Your task to perform on an android device: What's on my calendar tomorrow? Image 0: 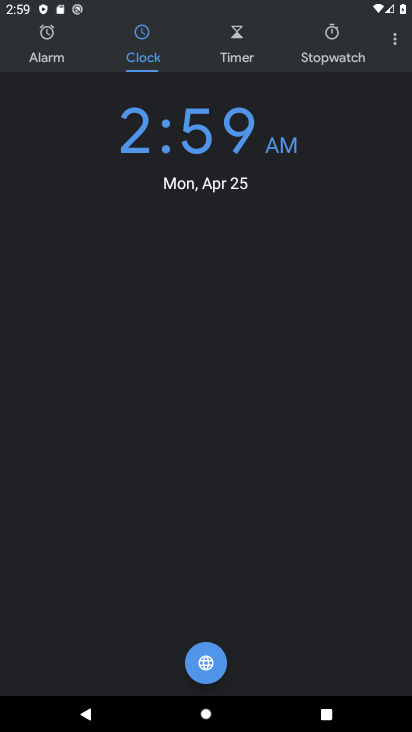
Step 0: press home button
Your task to perform on an android device: What's on my calendar tomorrow? Image 1: 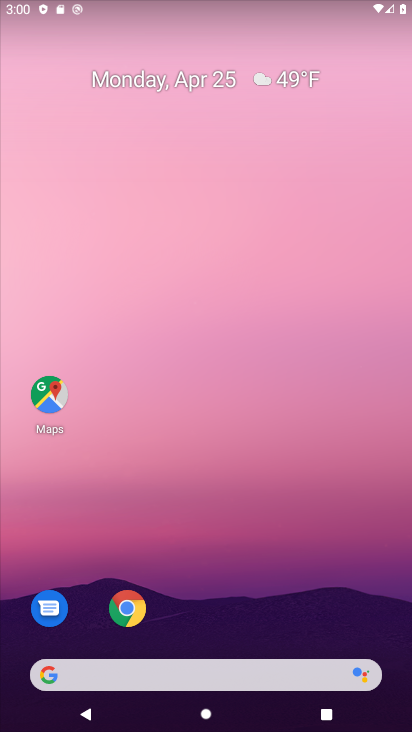
Step 1: drag from (186, 664) to (213, 6)
Your task to perform on an android device: What's on my calendar tomorrow? Image 2: 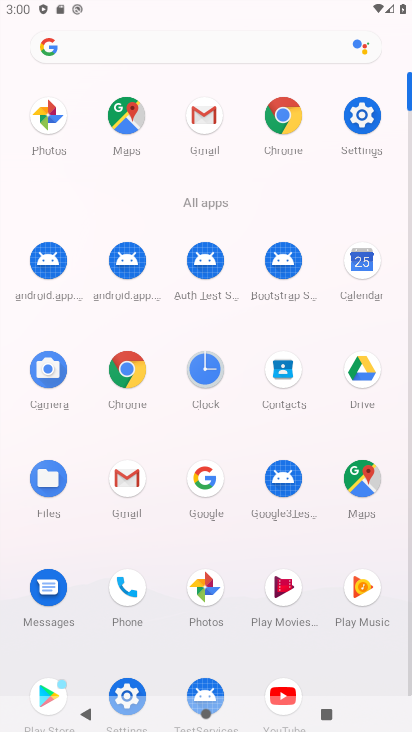
Step 2: click (368, 269)
Your task to perform on an android device: What's on my calendar tomorrow? Image 3: 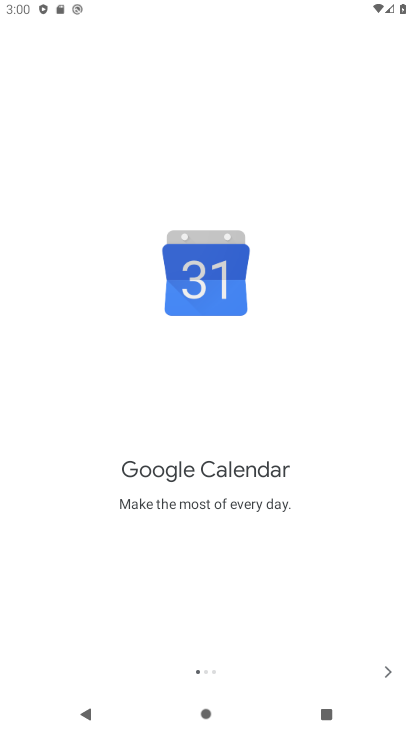
Step 3: click (388, 669)
Your task to perform on an android device: What's on my calendar tomorrow? Image 4: 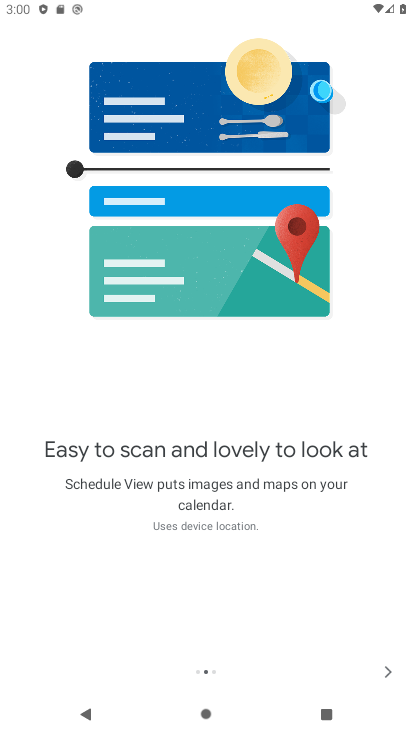
Step 4: click (388, 669)
Your task to perform on an android device: What's on my calendar tomorrow? Image 5: 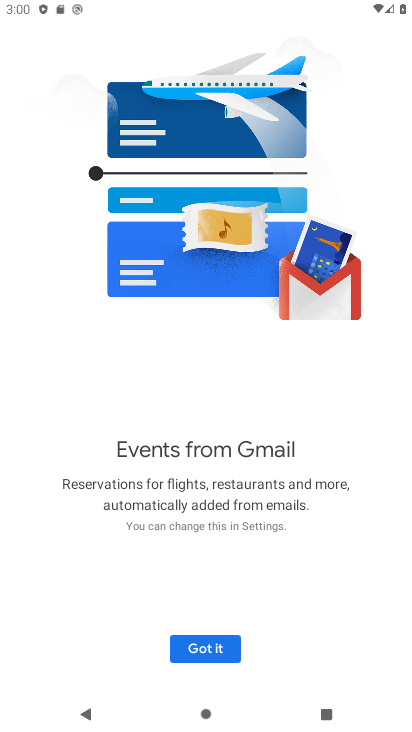
Step 5: click (215, 648)
Your task to perform on an android device: What's on my calendar tomorrow? Image 6: 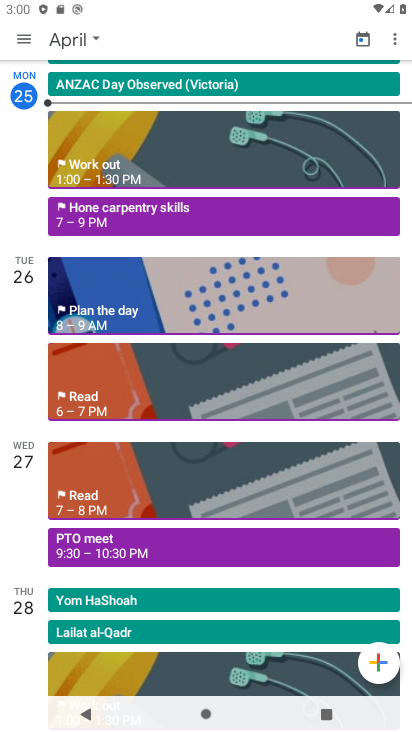
Step 6: click (18, 272)
Your task to perform on an android device: What's on my calendar tomorrow? Image 7: 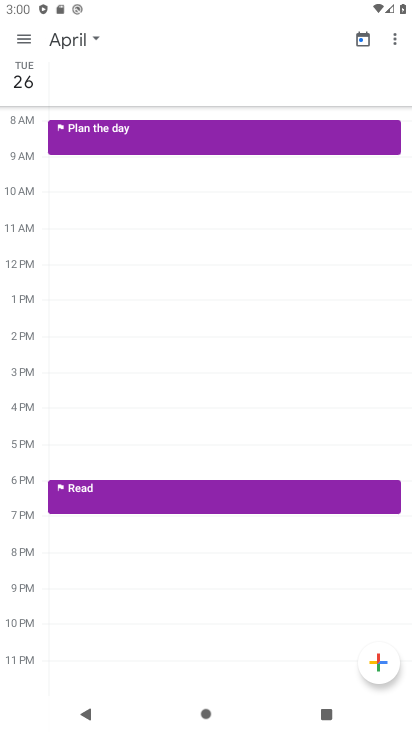
Step 7: task complete